Your task to perform on an android device: turn on showing notifications on the lock screen Image 0: 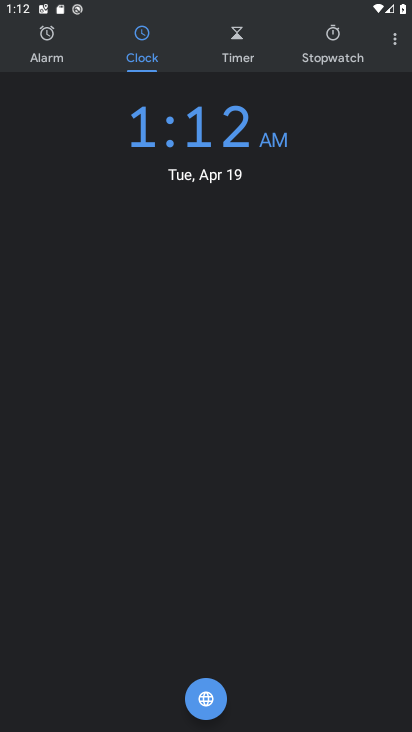
Step 0: press home button
Your task to perform on an android device: turn on showing notifications on the lock screen Image 1: 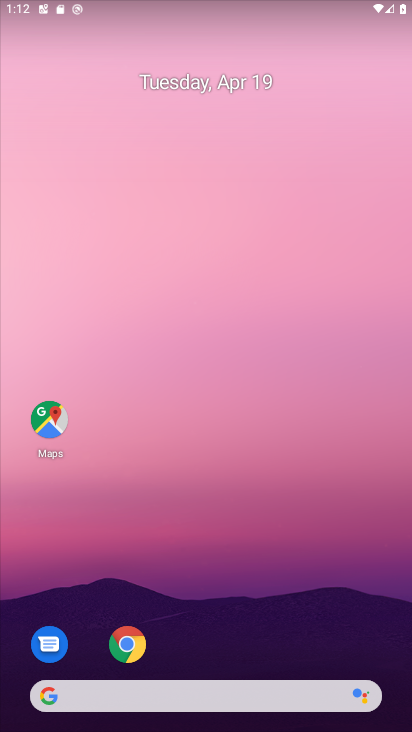
Step 1: drag from (202, 640) to (273, 2)
Your task to perform on an android device: turn on showing notifications on the lock screen Image 2: 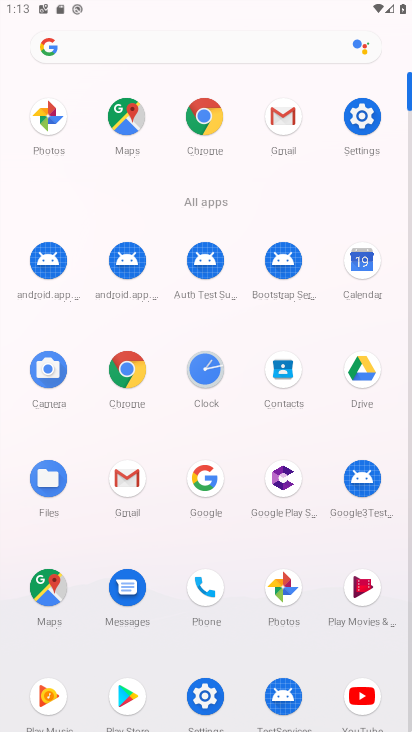
Step 2: click (366, 122)
Your task to perform on an android device: turn on showing notifications on the lock screen Image 3: 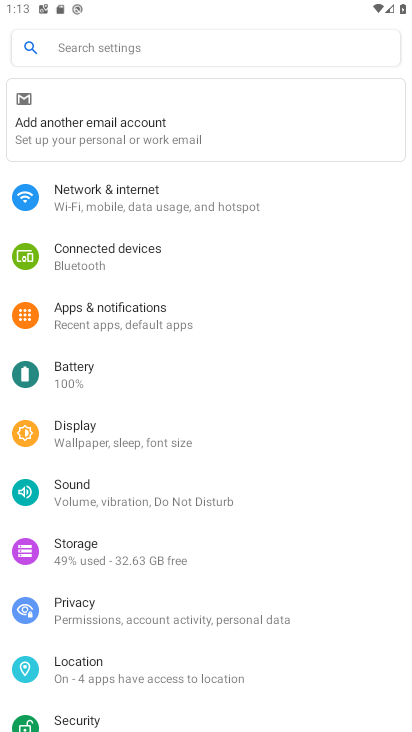
Step 3: click (123, 318)
Your task to perform on an android device: turn on showing notifications on the lock screen Image 4: 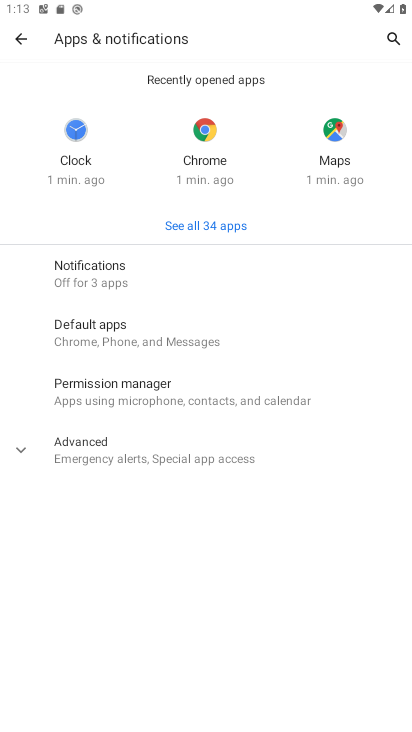
Step 4: click (113, 275)
Your task to perform on an android device: turn on showing notifications on the lock screen Image 5: 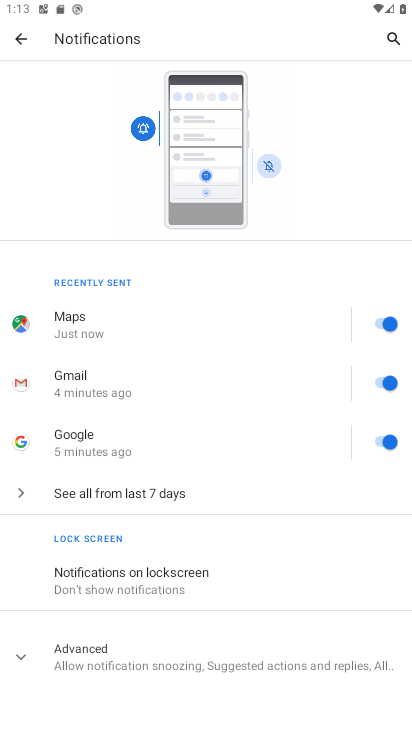
Step 5: click (98, 663)
Your task to perform on an android device: turn on showing notifications on the lock screen Image 6: 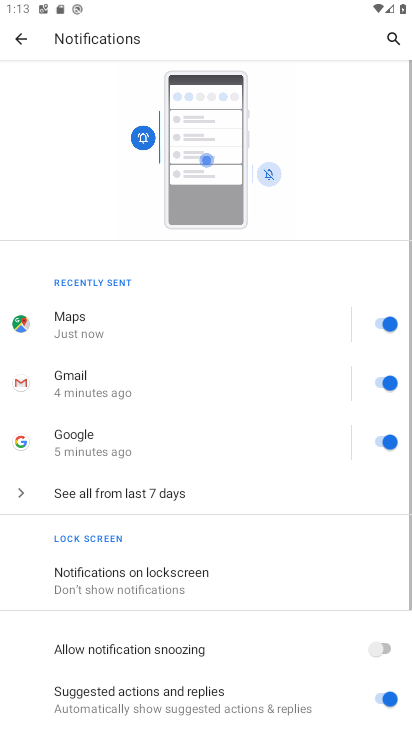
Step 6: drag from (114, 621) to (174, 267)
Your task to perform on an android device: turn on showing notifications on the lock screen Image 7: 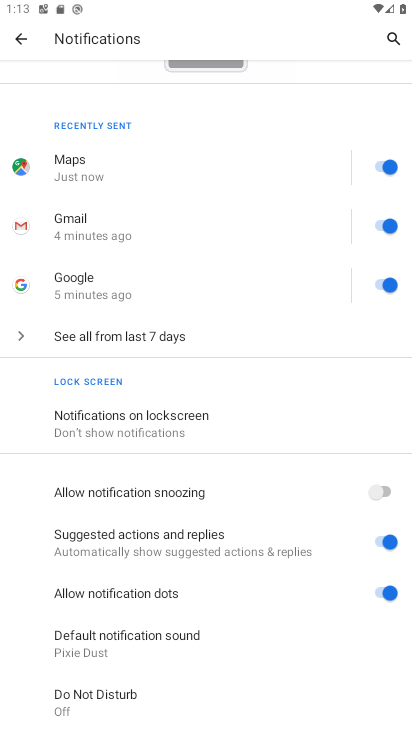
Step 7: click (126, 417)
Your task to perform on an android device: turn on showing notifications on the lock screen Image 8: 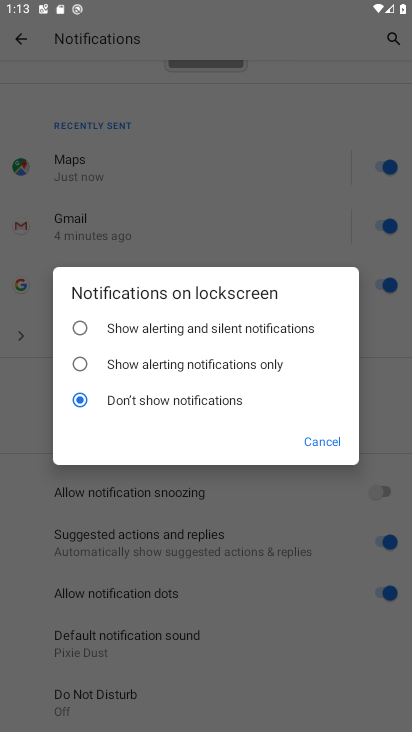
Step 8: click (81, 330)
Your task to perform on an android device: turn on showing notifications on the lock screen Image 9: 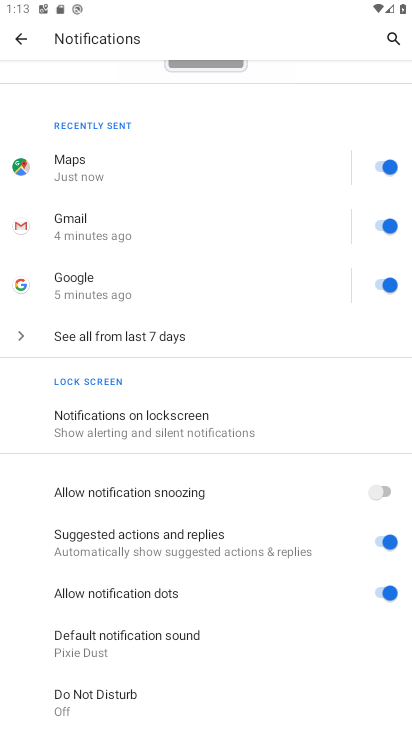
Step 9: task complete